Your task to perform on an android device: What's on my calendar today? Image 0: 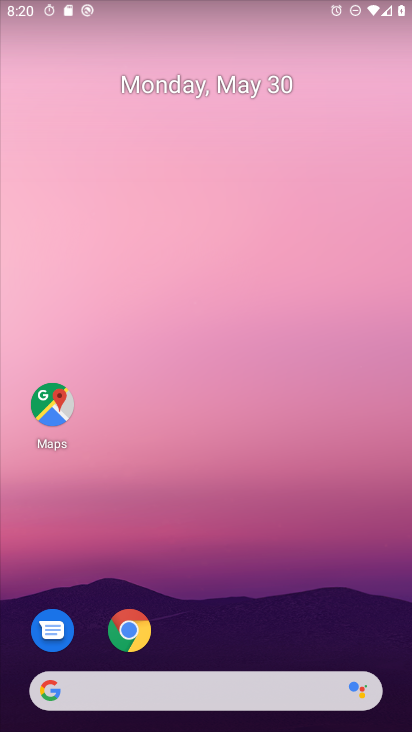
Step 0: drag from (338, 618) to (310, 209)
Your task to perform on an android device: What's on my calendar today? Image 1: 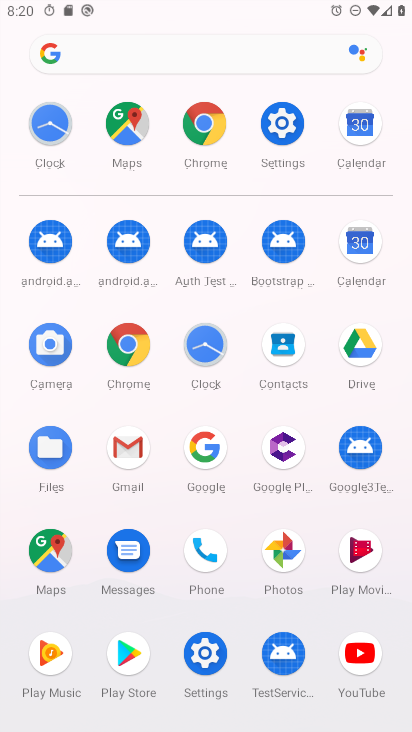
Step 1: click (361, 233)
Your task to perform on an android device: What's on my calendar today? Image 2: 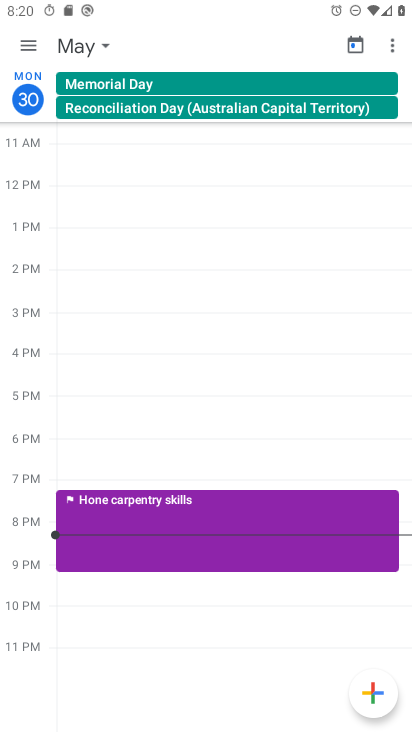
Step 2: click (87, 41)
Your task to perform on an android device: What's on my calendar today? Image 3: 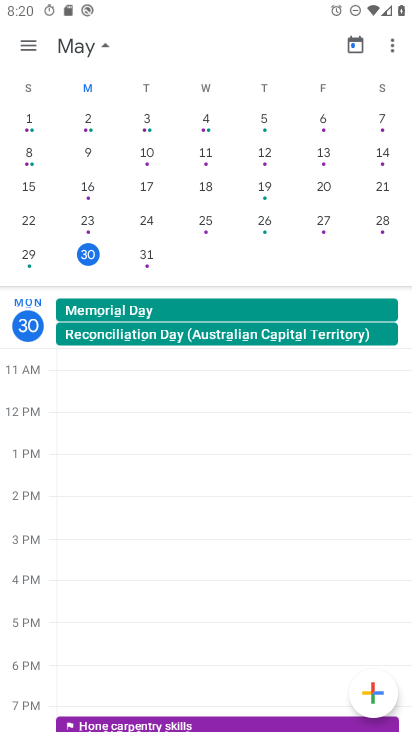
Step 3: click (139, 253)
Your task to perform on an android device: What's on my calendar today? Image 4: 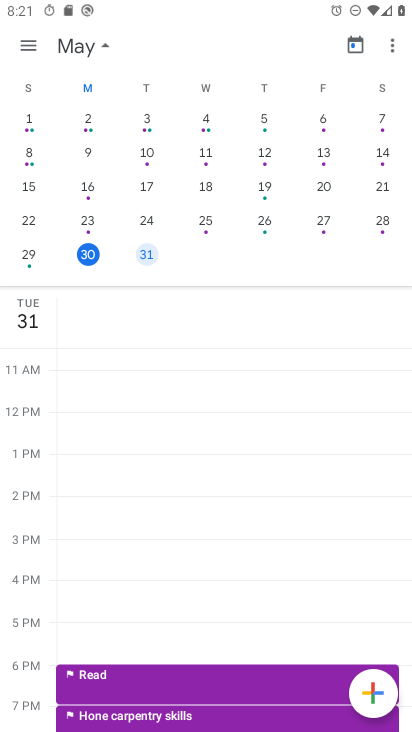
Step 4: click (212, 713)
Your task to perform on an android device: What's on my calendar today? Image 5: 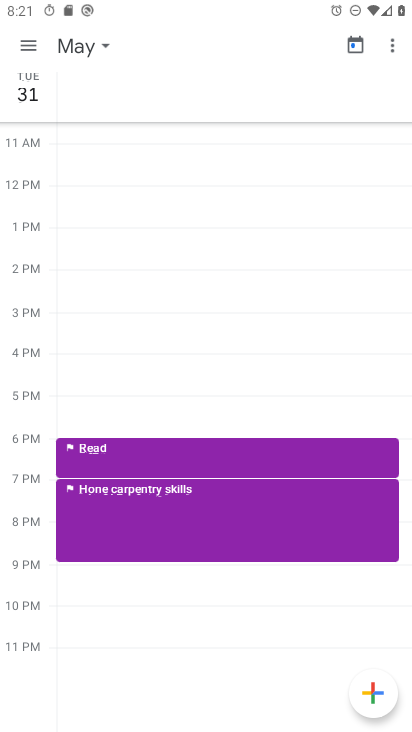
Step 5: click (201, 511)
Your task to perform on an android device: What's on my calendar today? Image 6: 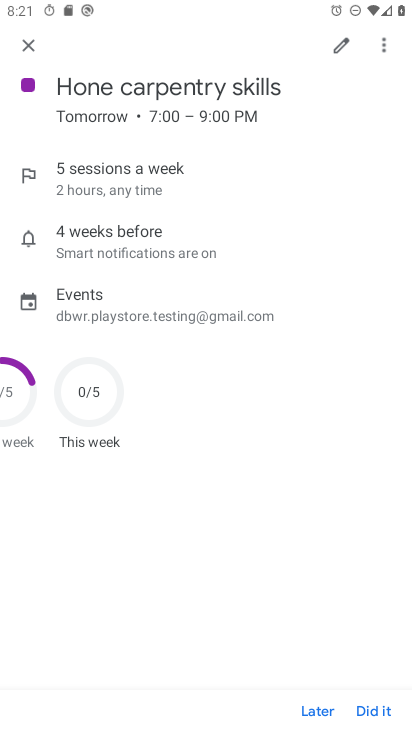
Step 6: task complete